Your task to perform on an android device: Open the phone app and click the voicemail tab. Image 0: 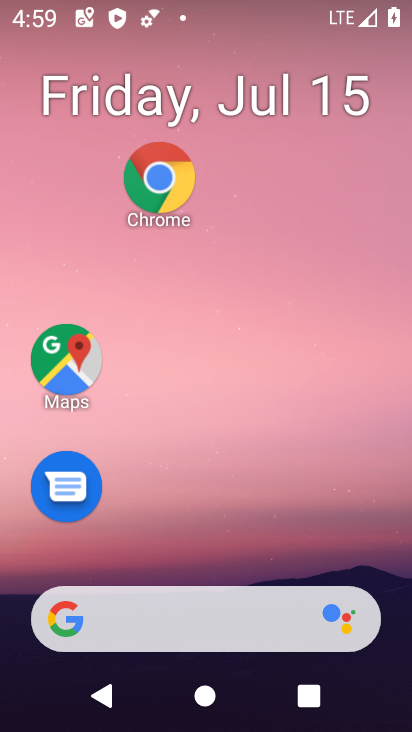
Step 0: drag from (232, 556) to (213, 3)
Your task to perform on an android device: Open the phone app and click the voicemail tab. Image 1: 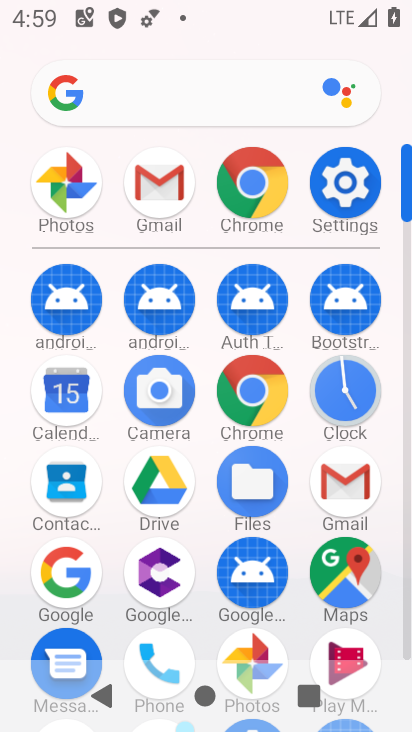
Step 1: click (151, 646)
Your task to perform on an android device: Open the phone app and click the voicemail tab. Image 2: 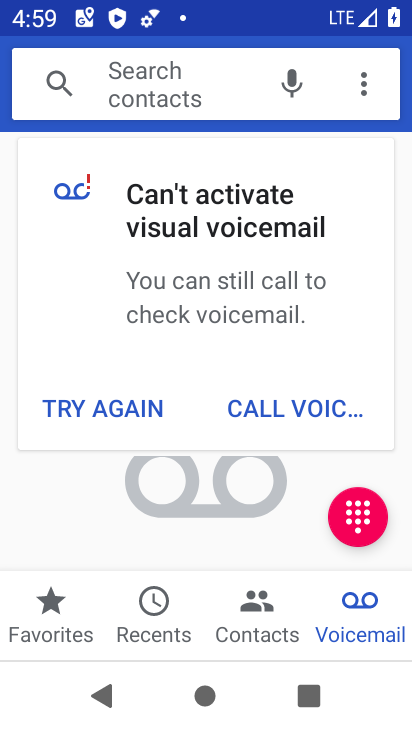
Step 2: click (357, 638)
Your task to perform on an android device: Open the phone app and click the voicemail tab. Image 3: 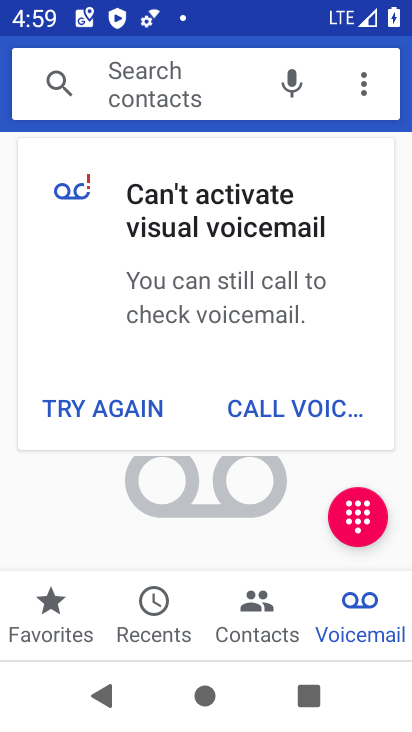
Step 3: task complete